Your task to perform on an android device: Open Google Chrome and click the shortcut for Amazon.com Image 0: 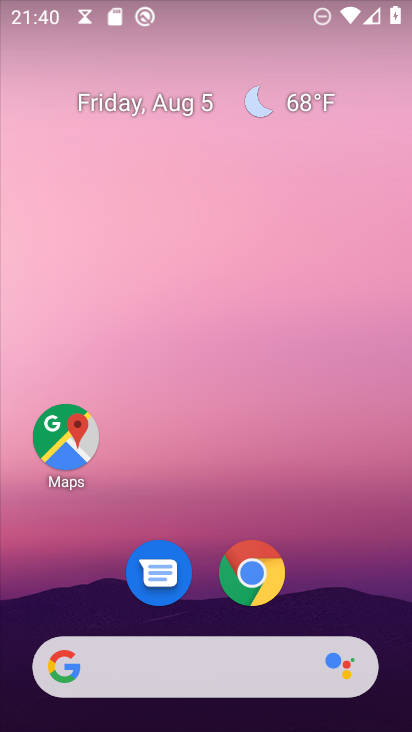
Step 0: click (250, 575)
Your task to perform on an android device: Open Google Chrome and click the shortcut for Amazon.com Image 1: 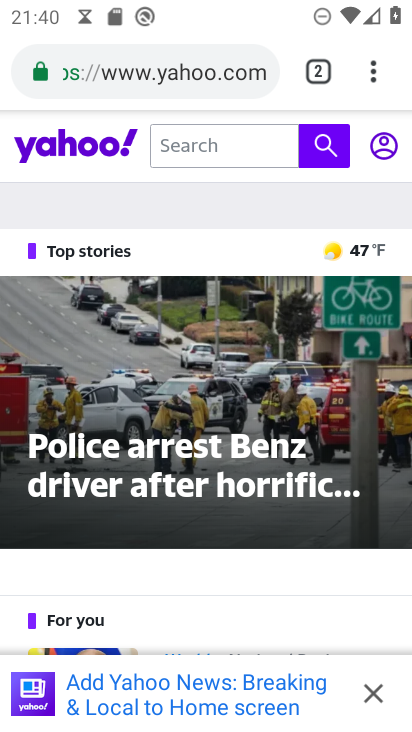
Step 1: click (269, 73)
Your task to perform on an android device: Open Google Chrome and click the shortcut for Amazon.com Image 2: 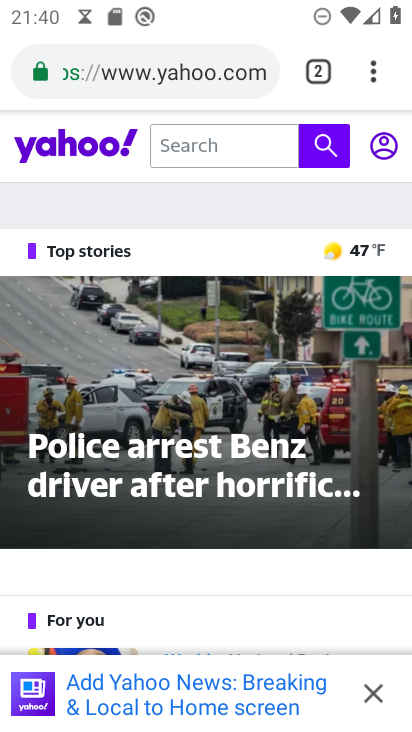
Step 2: click (254, 72)
Your task to perform on an android device: Open Google Chrome and click the shortcut for Amazon.com Image 3: 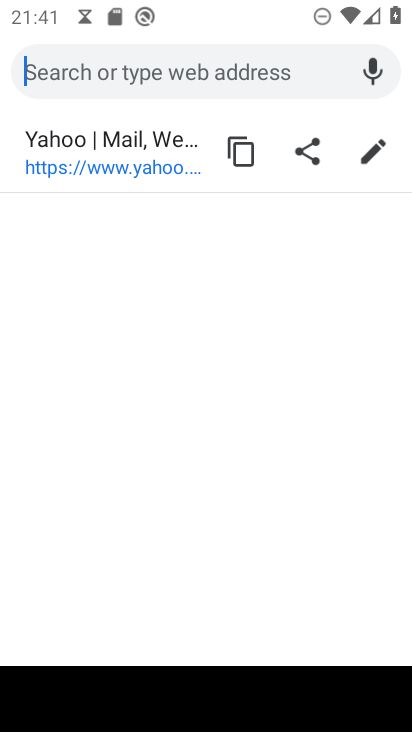
Step 3: type "Amazon.com"
Your task to perform on an android device: Open Google Chrome and click the shortcut for Amazon.com Image 4: 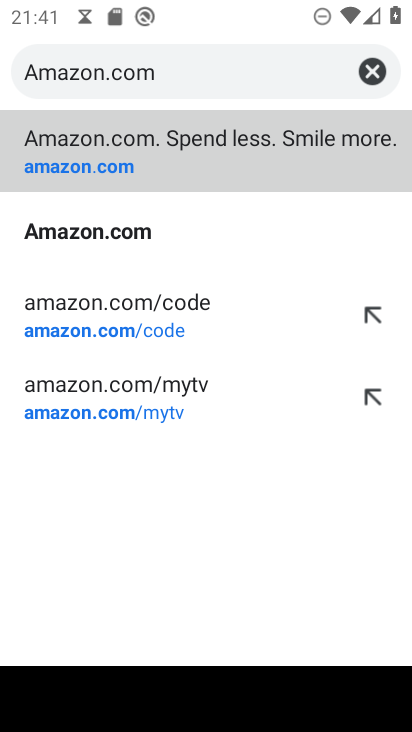
Step 4: click (127, 239)
Your task to perform on an android device: Open Google Chrome and click the shortcut for Amazon.com Image 5: 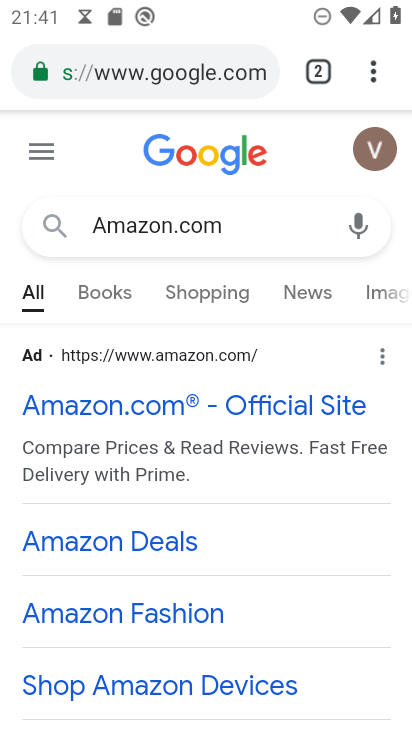
Step 5: drag from (179, 555) to (245, 342)
Your task to perform on an android device: Open Google Chrome and click the shortcut for Amazon.com Image 6: 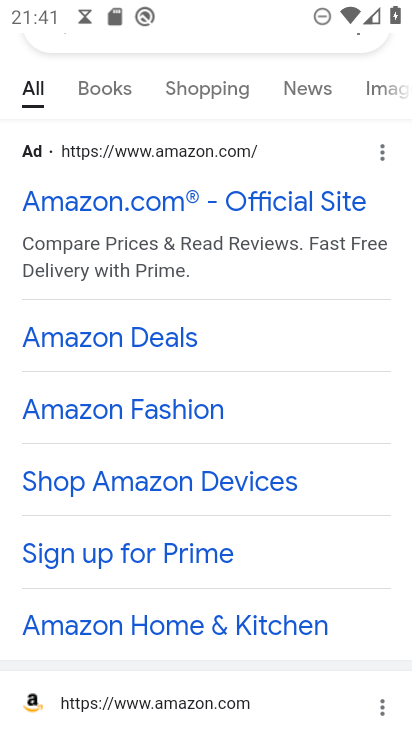
Step 6: drag from (173, 642) to (257, 517)
Your task to perform on an android device: Open Google Chrome and click the shortcut for Amazon.com Image 7: 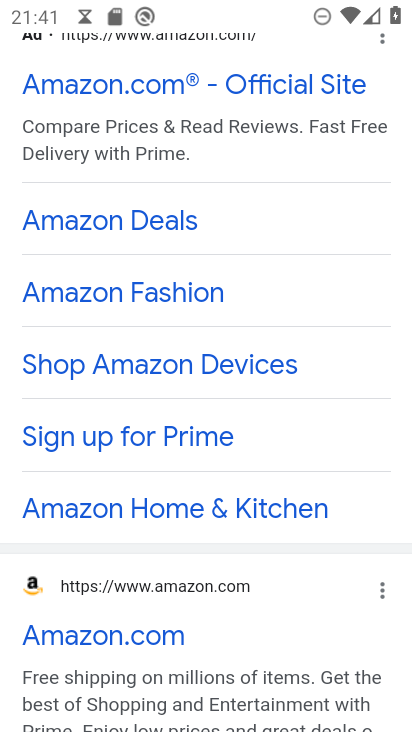
Step 7: click (200, 583)
Your task to perform on an android device: Open Google Chrome and click the shortcut for Amazon.com Image 8: 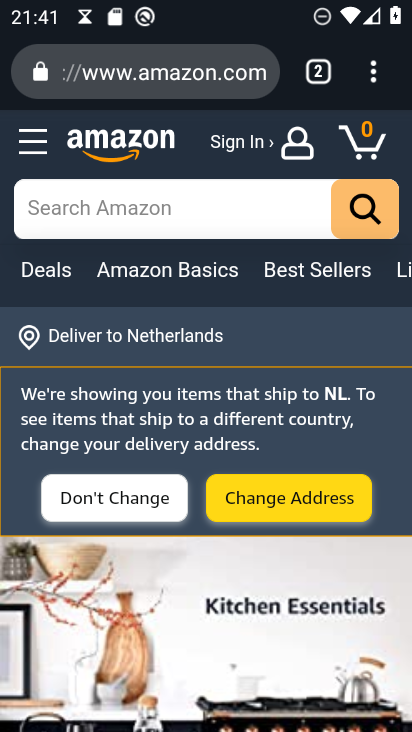
Step 8: click (374, 75)
Your task to perform on an android device: Open Google Chrome and click the shortcut for Amazon.com Image 9: 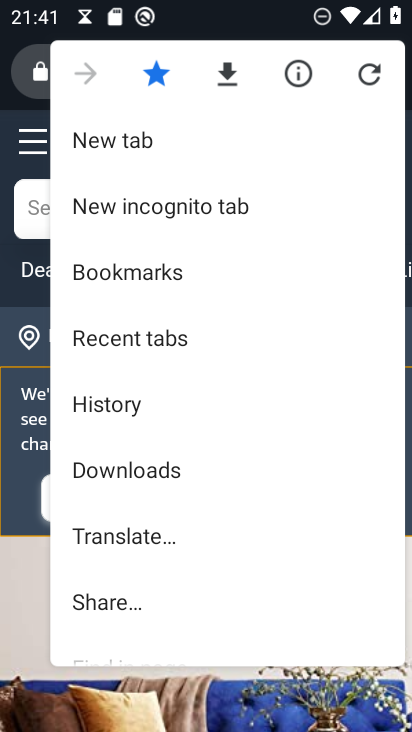
Step 9: drag from (119, 440) to (193, 217)
Your task to perform on an android device: Open Google Chrome and click the shortcut for Amazon.com Image 10: 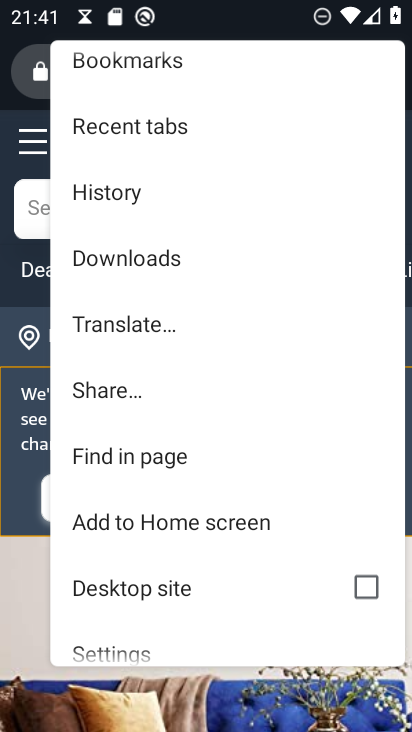
Step 10: click (162, 522)
Your task to perform on an android device: Open Google Chrome and click the shortcut for Amazon.com Image 11: 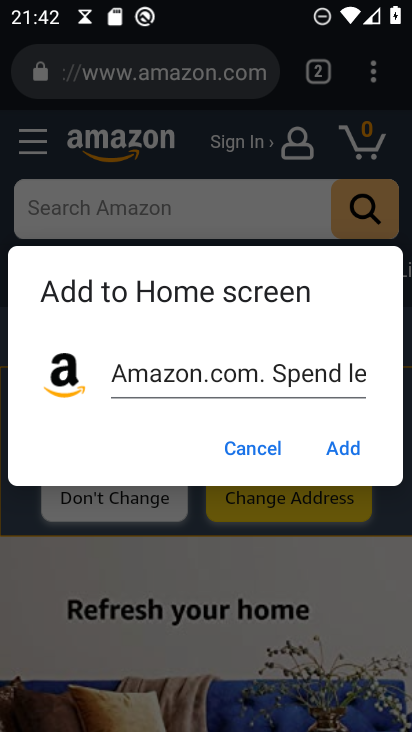
Step 11: click (344, 446)
Your task to perform on an android device: Open Google Chrome and click the shortcut for Amazon.com Image 12: 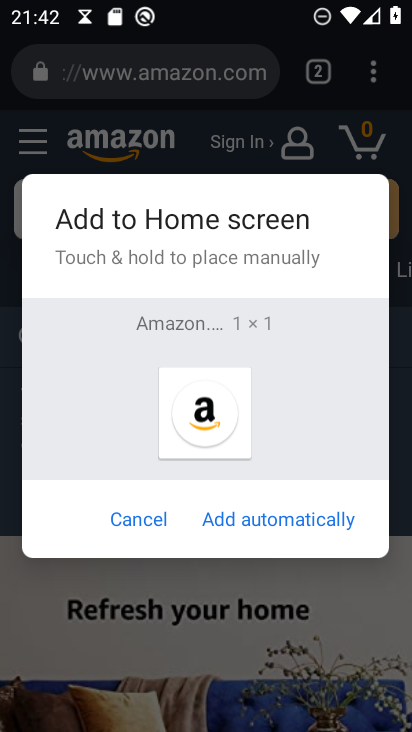
Step 12: click (280, 520)
Your task to perform on an android device: Open Google Chrome and click the shortcut for Amazon.com Image 13: 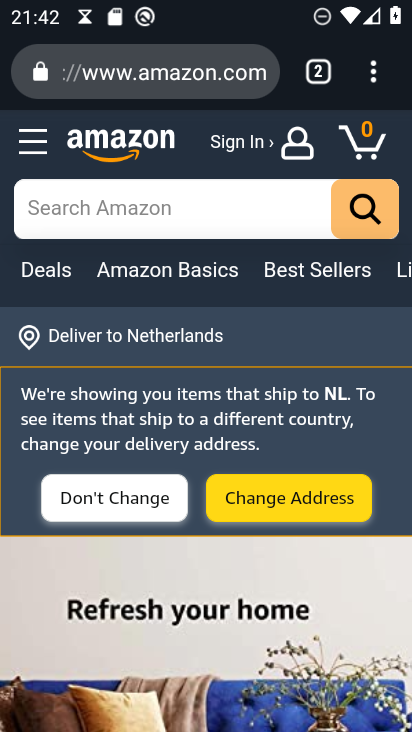
Step 13: task complete